Your task to perform on an android device: open wifi settings Image 0: 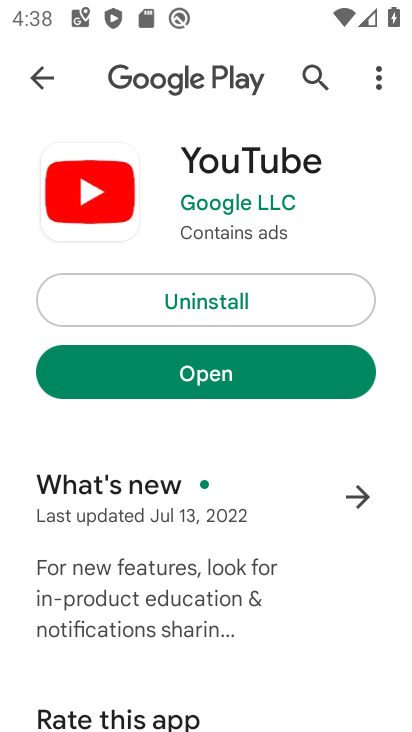
Step 0: press back button
Your task to perform on an android device: open wifi settings Image 1: 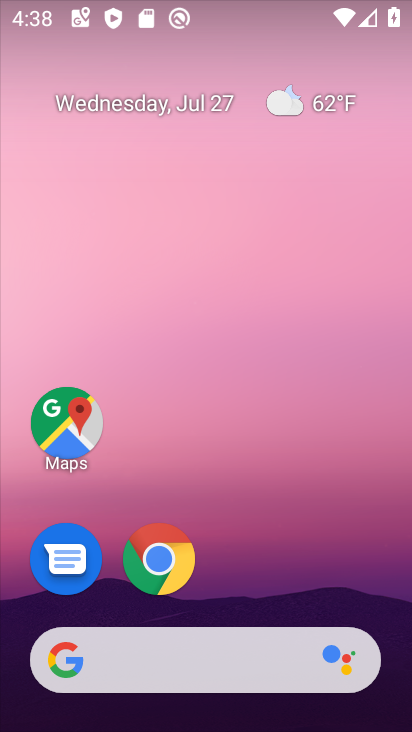
Step 1: drag from (128, 9) to (144, 547)
Your task to perform on an android device: open wifi settings Image 2: 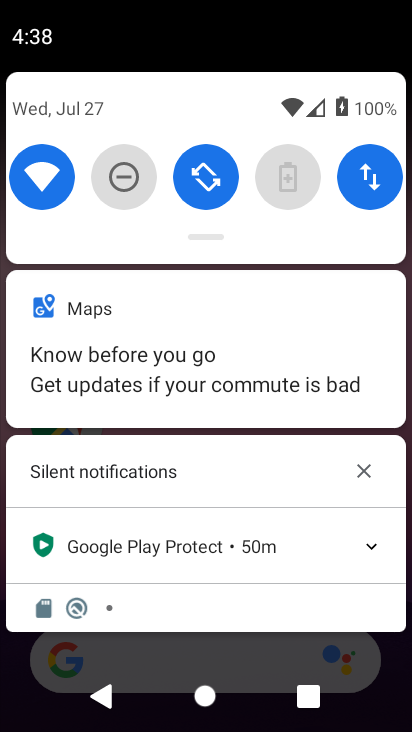
Step 2: click (39, 183)
Your task to perform on an android device: open wifi settings Image 3: 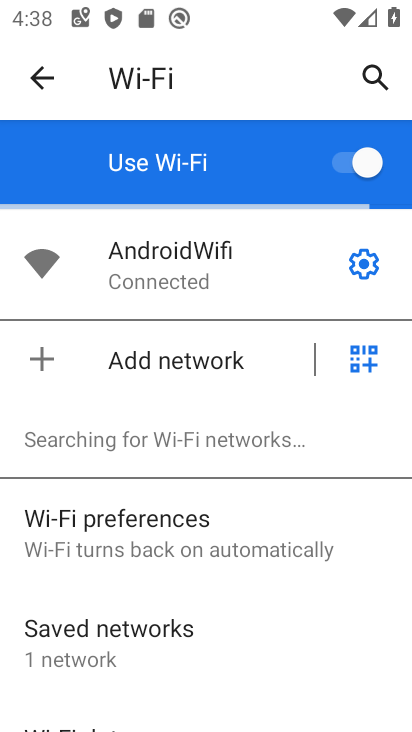
Step 3: task complete